Your task to perform on an android device: What's the weather? Image 0: 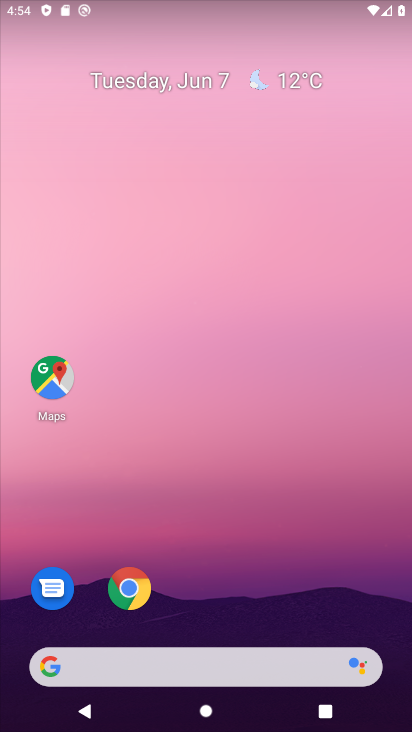
Step 0: drag from (202, 595) to (135, 3)
Your task to perform on an android device: What's the weather? Image 1: 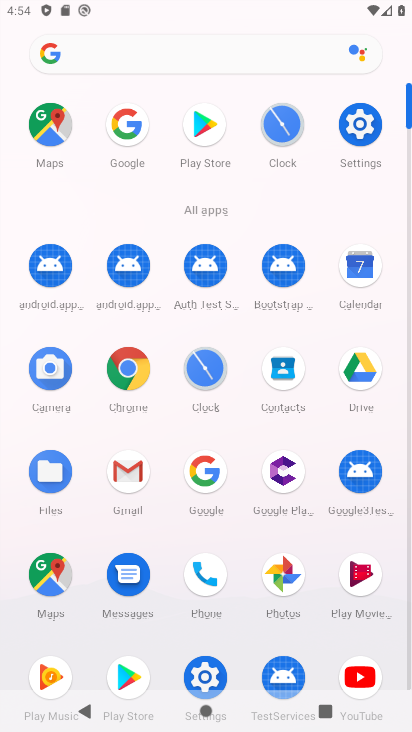
Step 1: click (121, 142)
Your task to perform on an android device: What's the weather? Image 2: 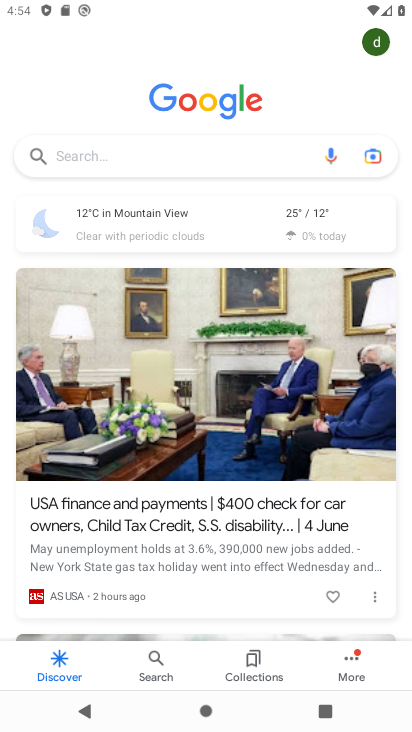
Step 2: click (154, 159)
Your task to perform on an android device: What's the weather? Image 3: 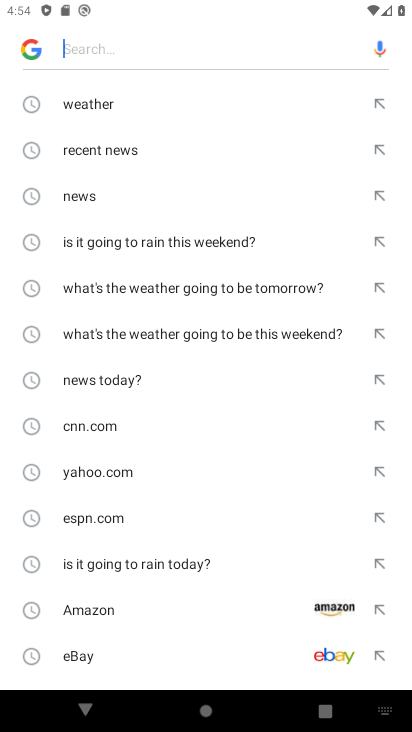
Step 3: click (93, 106)
Your task to perform on an android device: What's the weather? Image 4: 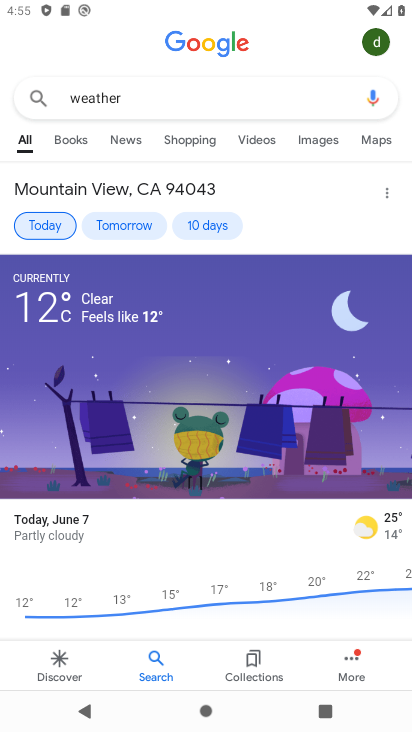
Step 4: task complete